Your task to perform on an android device: Open Youtube and go to the subscriptions tab Image 0: 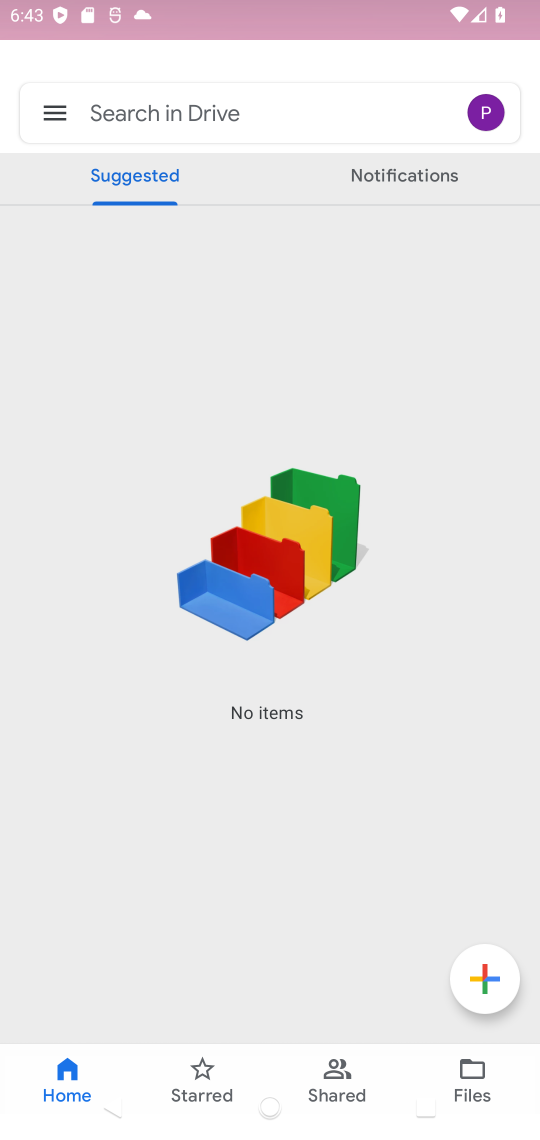
Step 0: press home button
Your task to perform on an android device: Open Youtube and go to the subscriptions tab Image 1: 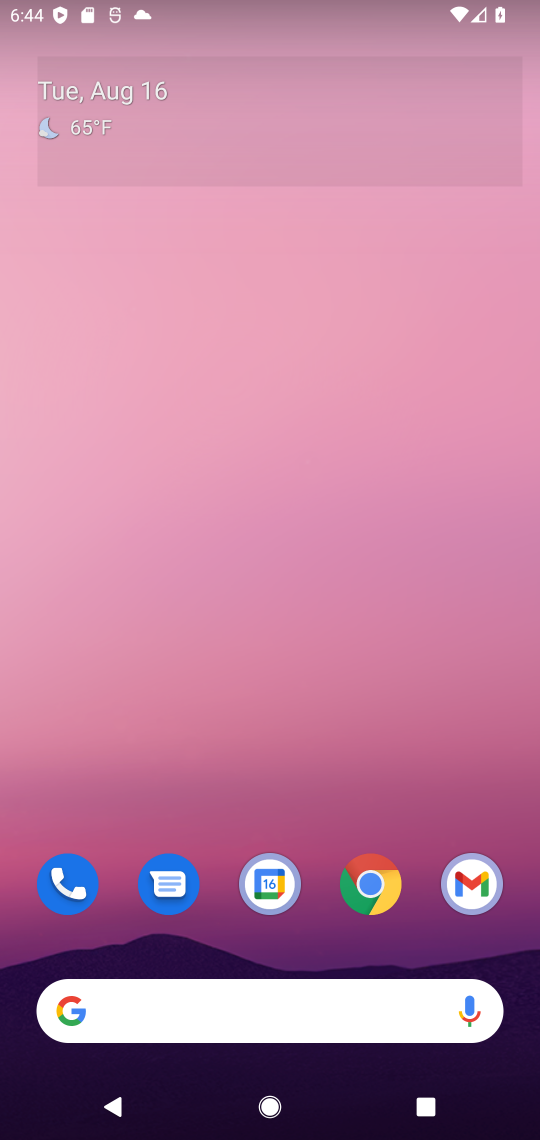
Step 1: drag from (319, 972) to (392, 8)
Your task to perform on an android device: Open Youtube and go to the subscriptions tab Image 2: 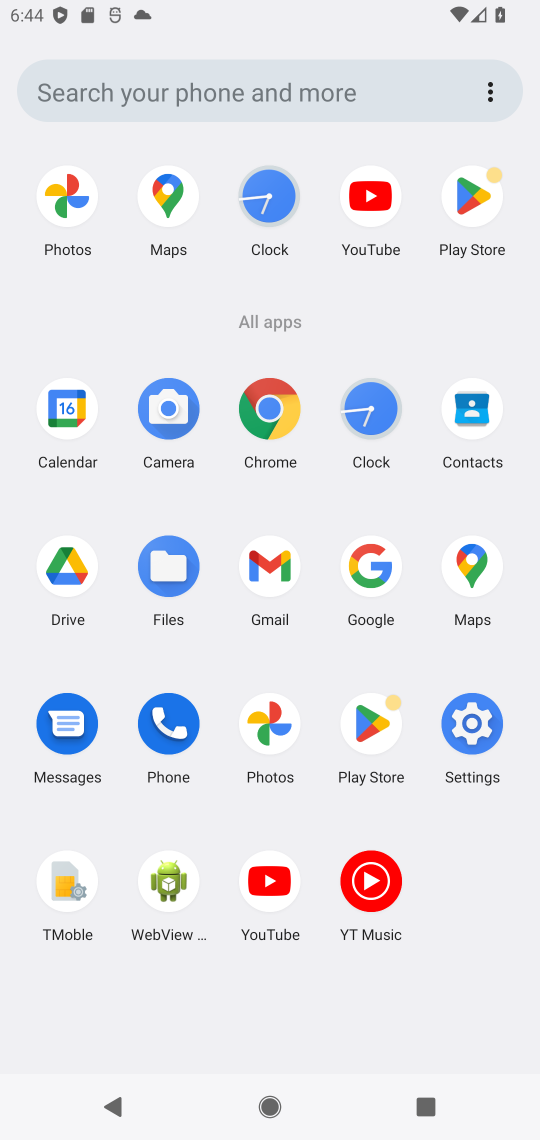
Step 2: click (265, 894)
Your task to perform on an android device: Open Youtube and go to the subscriptions tab Image 3: 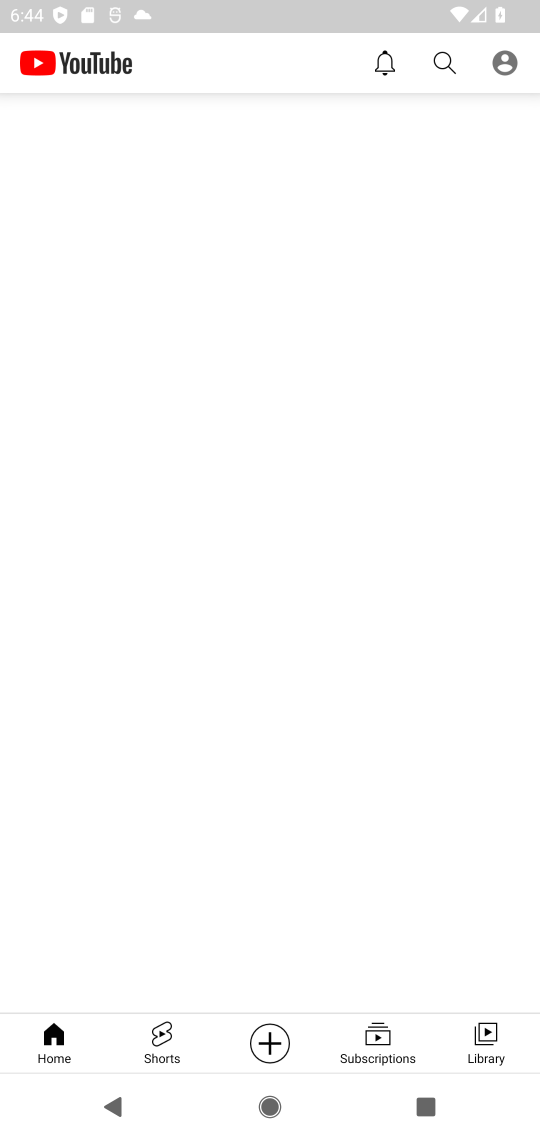
Step 3: click (339, 1050)
Your task to perform on an android device: Open Youtube and go to the subscriptions tab Image 4: 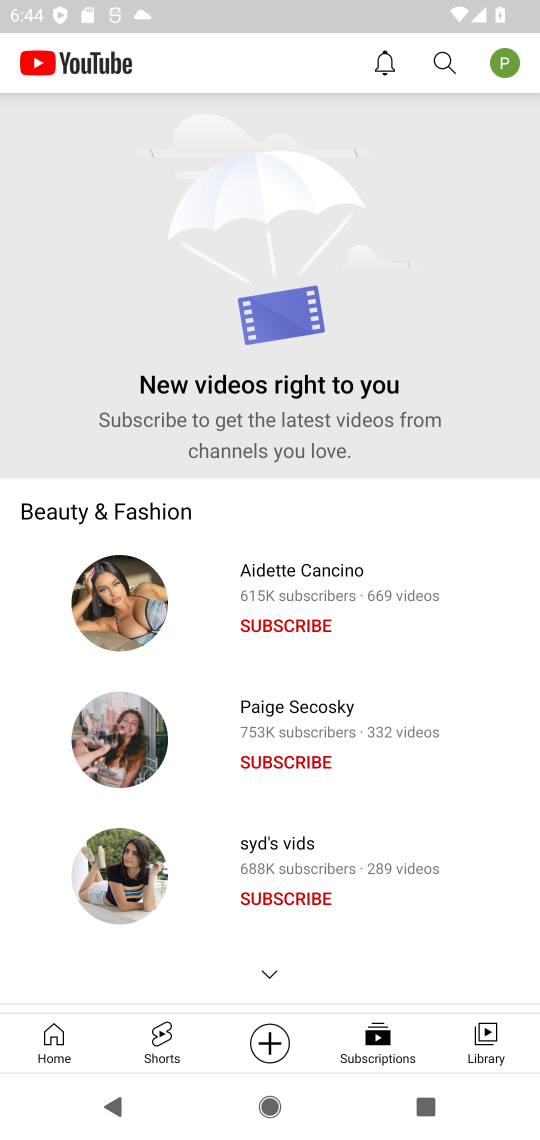
Step 4: task complete